Your task to perform on an android device: Is it going to rain tomorrow? Image 0: 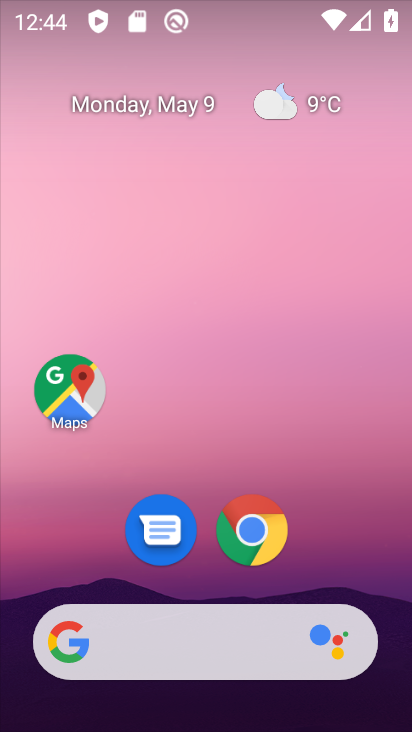
Step 0: drag from (320, 451) to (320, 245)
Your task to perform on an android device: Is it going to rain tomorrow? Image 1: 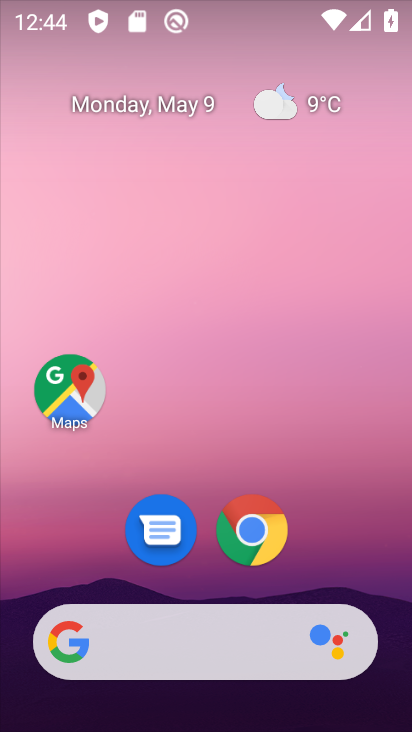
Step 1: drag from (338, 515) to (338, 177)
Your task to perform on an android device: Is it going to rain tomorrow? Image 2: 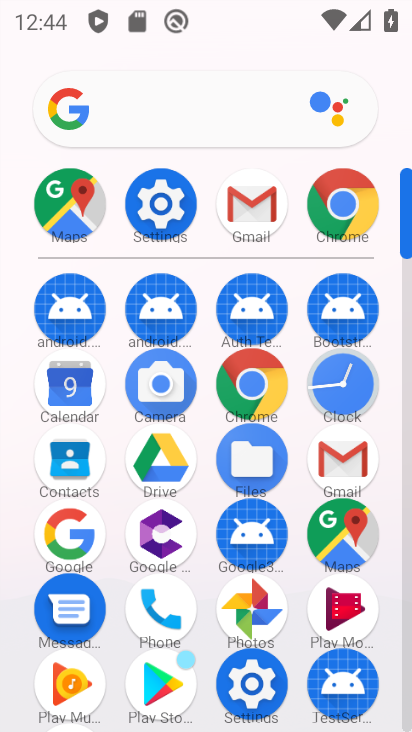
Step 2: click (246, 389)
Your task to perform on an android device: Is it going to rain tomorrow? Image 3: 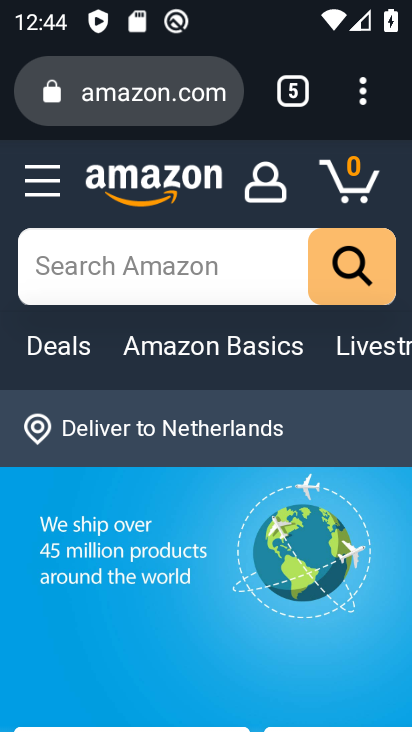
Step 3: click (341, 97)
Your task to perform on an android device: Is it going to rain tomorrow? Image 4: 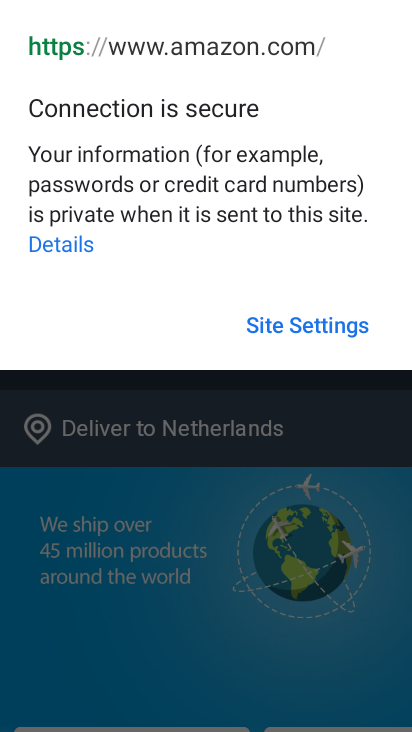
Step 4: press back button
Your task to perform on an android device: Is it going to rain tomorrow? Image 5: 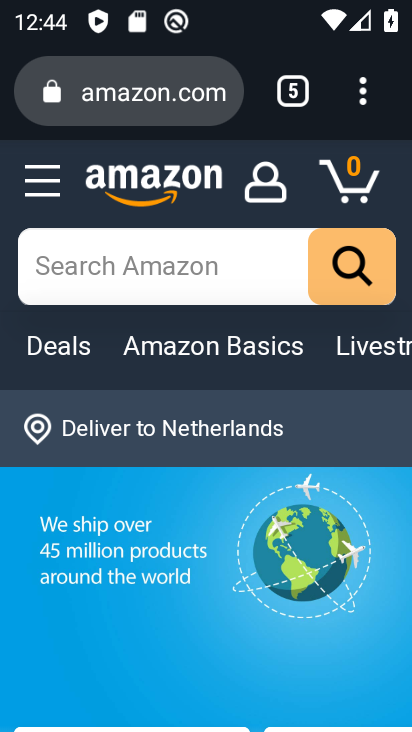
Step 5: click (341, 84)
Your task to perform on an android device: Is it going to rain tomorrow? Image 6: 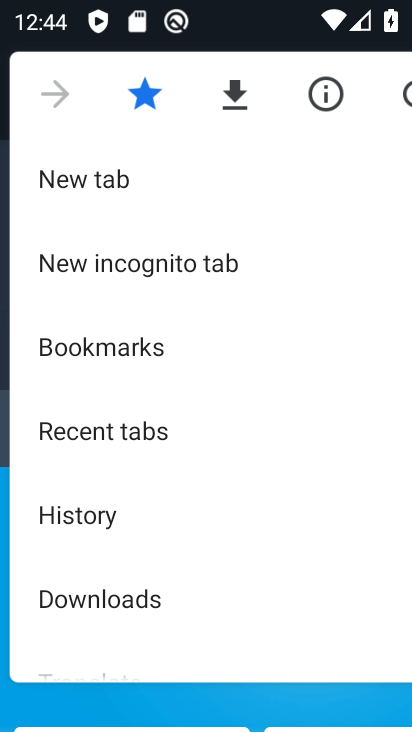
Step 6: click (157, 173)
Your task to perform on an android device: Is it going to rain tomorrow? Image 7: 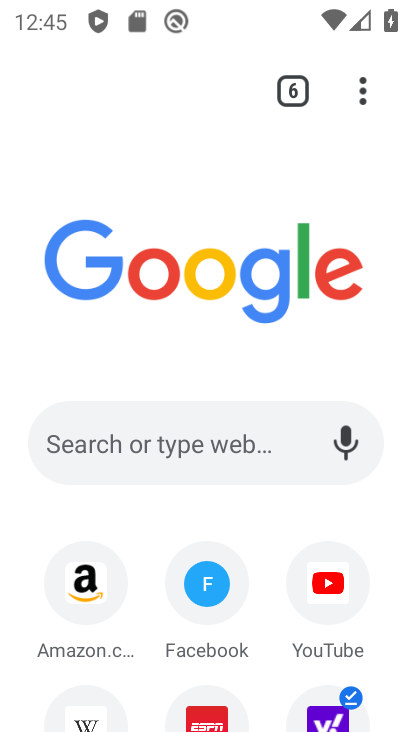
Step 7: click (234, 445)
Your task to perform on an android device: Is it going to rain tomorrow? Image 8: 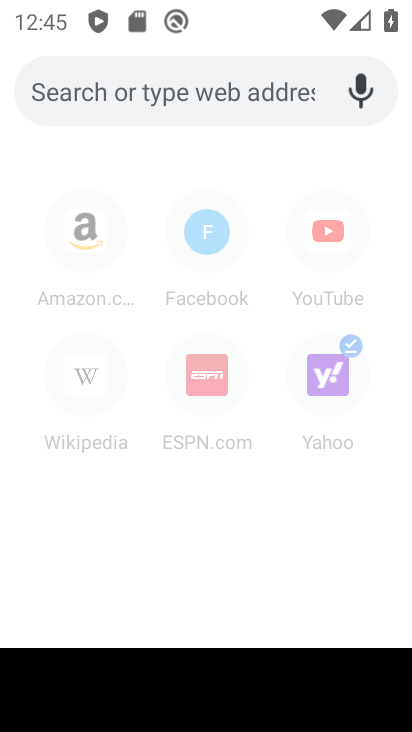
Step 8: type "Is it going to rain tomorrow?"
Your task to perform on an android device: Is it going to rain tomorrow? Image 9: 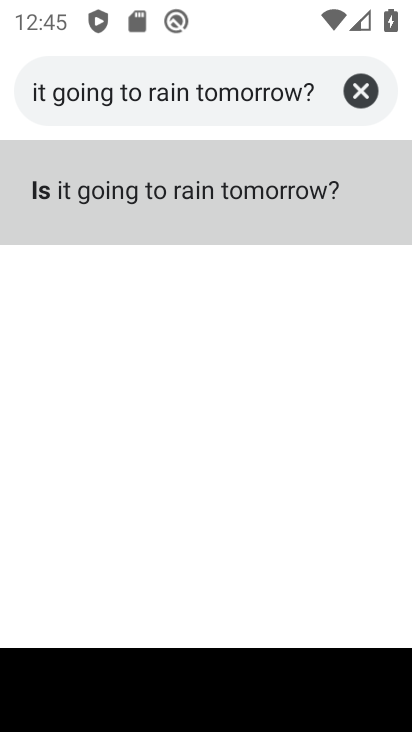
Step 9: click (160, 205)
Your task to perform on an android device: Is it going to rain tomorrow? Image 10: 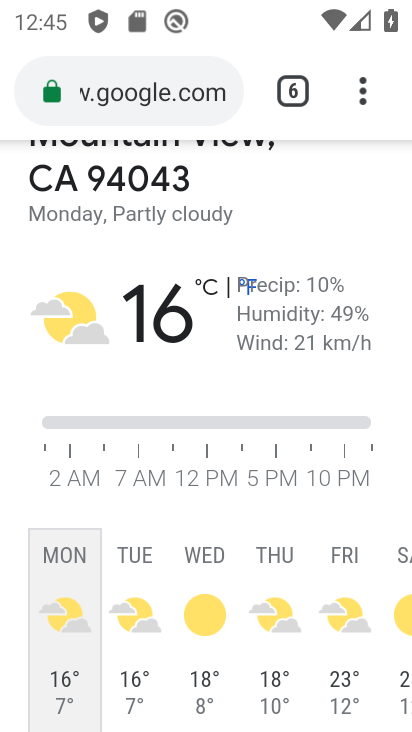
Step 10: task complete